Your task to perform on an android device: change alarm snooze length Image 0: 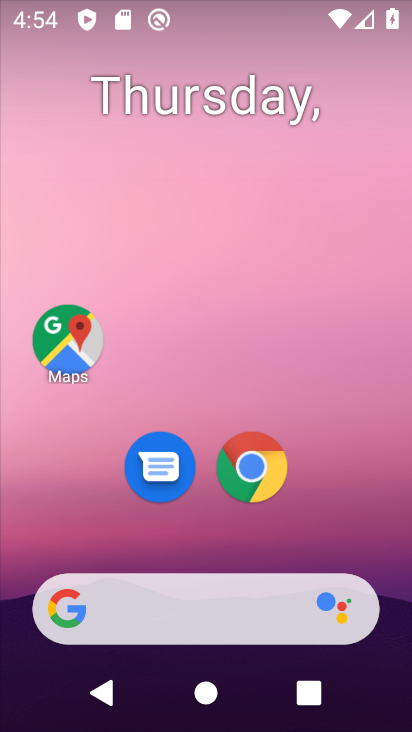
Step 0: drag from (367, 529) to (277, 140)
Your task to perform on an android device: change alarm snooze length Image 1: 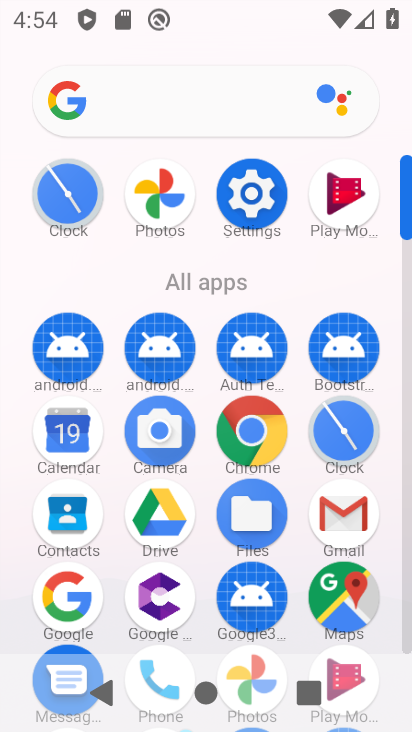
Step 1: click (359, 422)
Your task to perform on an android device: change alarm snooze length Image 2: 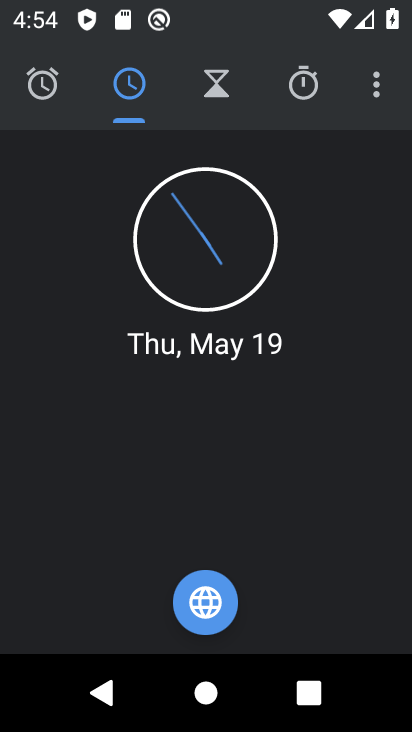
Step 2: click (380, 100)
Your task to perform on an android device: change alarm snooze length Image 3: 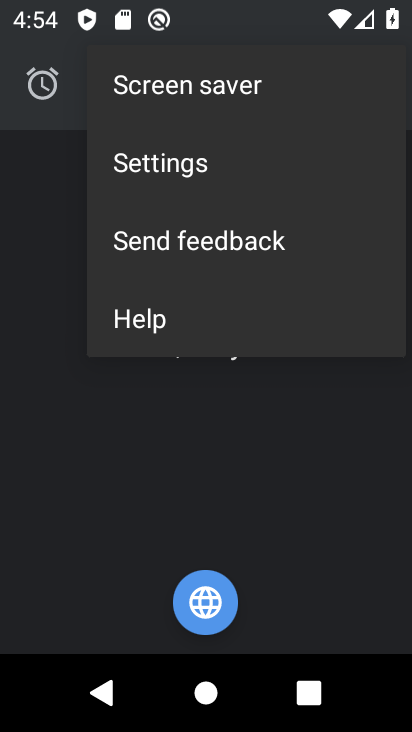
Step 3: click (265, 179)
Your task to perform on an android device: change alarm snooze length Image 4: 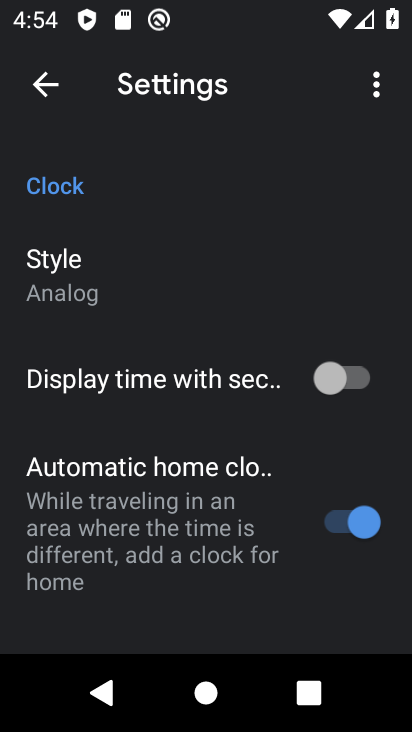
Step 4: drag from (202, 572) to (173, 171)
Your task to perform on an android device: change alarm snooze length Image 5: 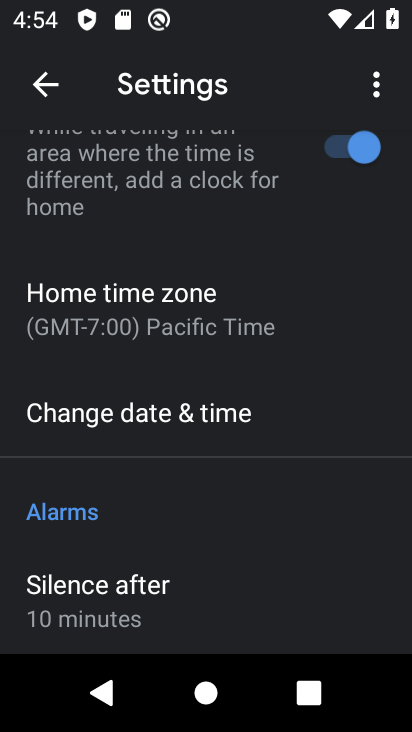
Step 5: drag from (242, 582) to (224, 205)
Your task to perform on an android device: change alarm snooze length Image 6: 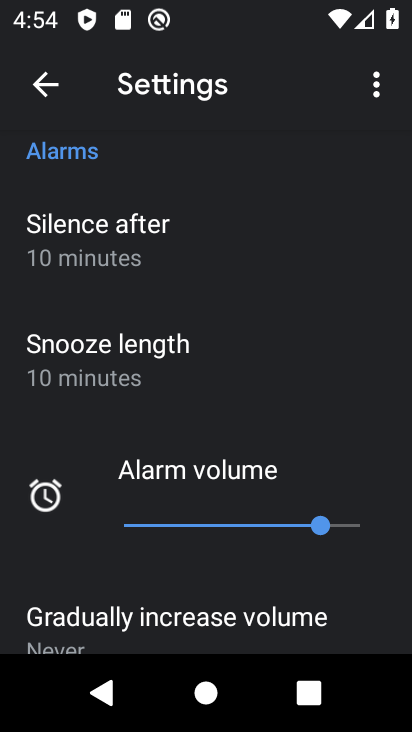
Step 6: click (228, 333)
Your task to perform on an android device: change alarm snooze length Image 7: 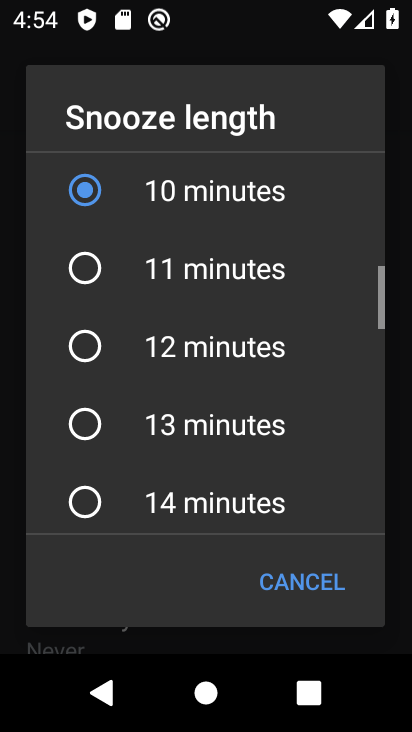
Step 7: click (229, 289)
Your task to perform on an android device: change alarm snooze length Image 8: 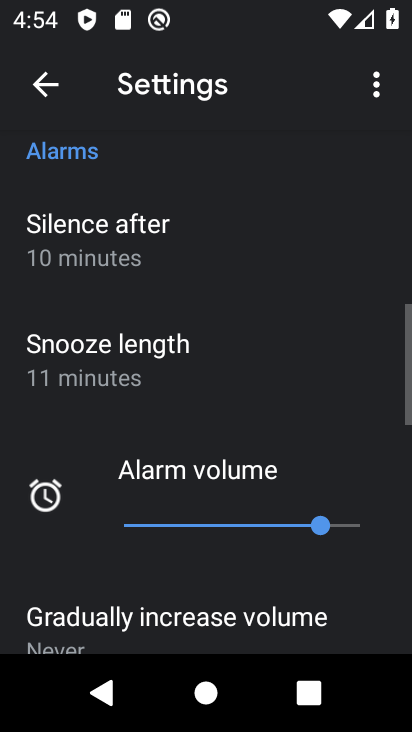
Step 8: task complete